Your task to perform on an android device: set the timer Image 0: 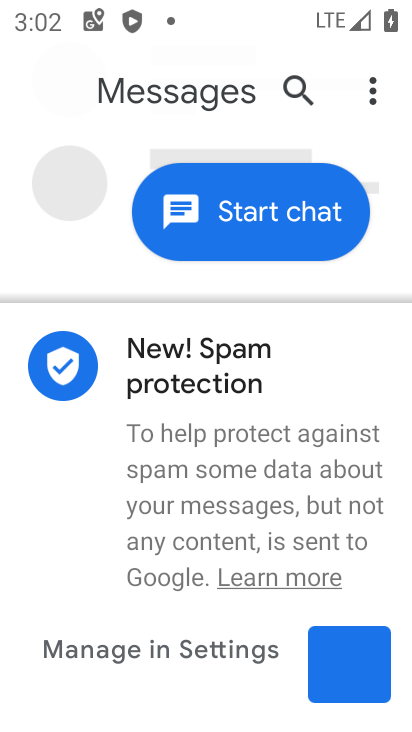
Step 0: press home button
Your task to perform on an android device: set the timer Image 1: 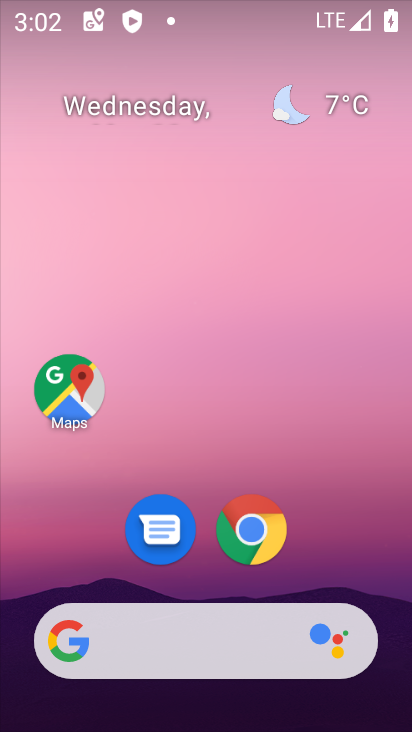
Step 1: drag from (349, 515) to (353, 26)
Your task to perform on an android device: set the timer Image 2: 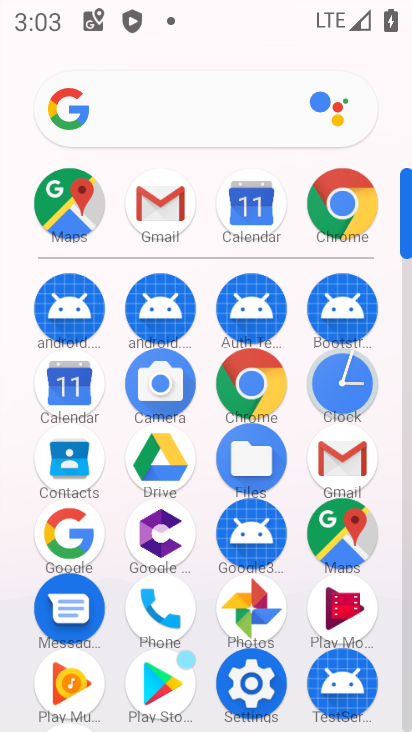
Step 2: click (338, 380)
Your task to perform on an android device: set the timer Image 3: 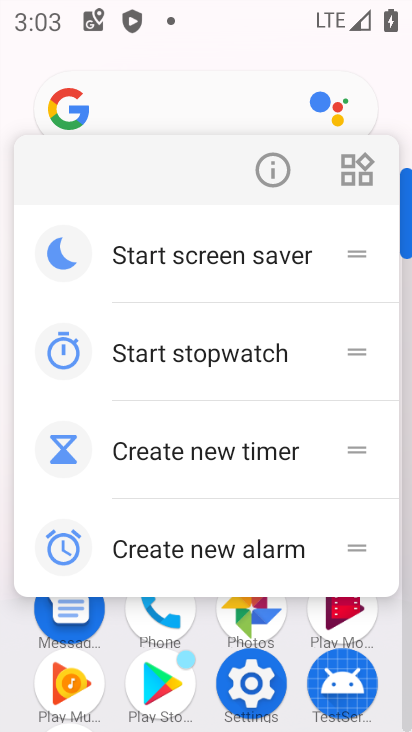
Step 3: press back button
Your task to perform on an android device: set the timer Image 4: 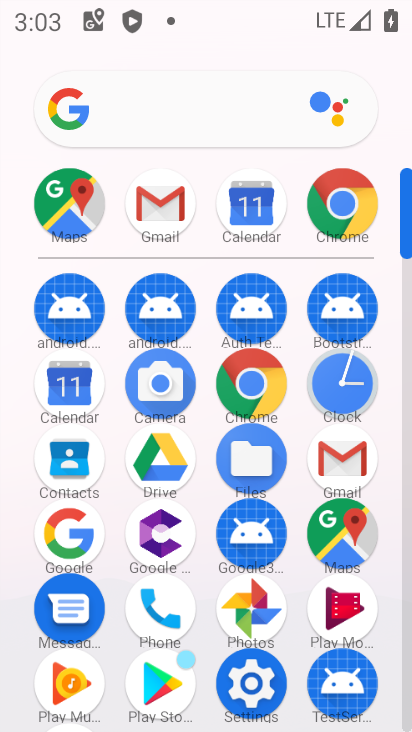
Step 4: click (364, 371)
Your task to perform on an android device: set the timer Image 5: 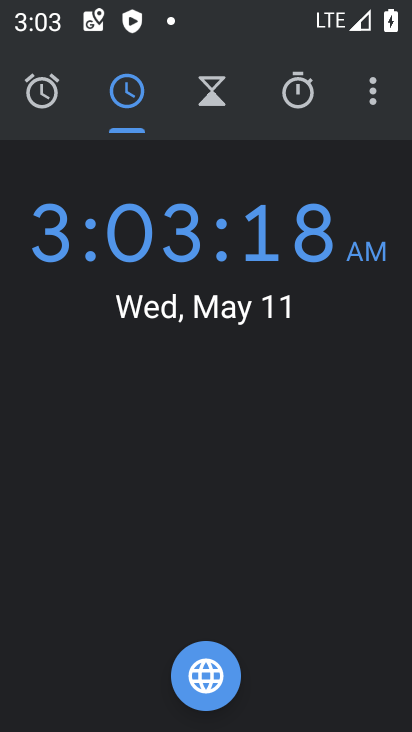
Step 5: click (206, 95)
Your task to perform on an android device: set the timer Image 6: 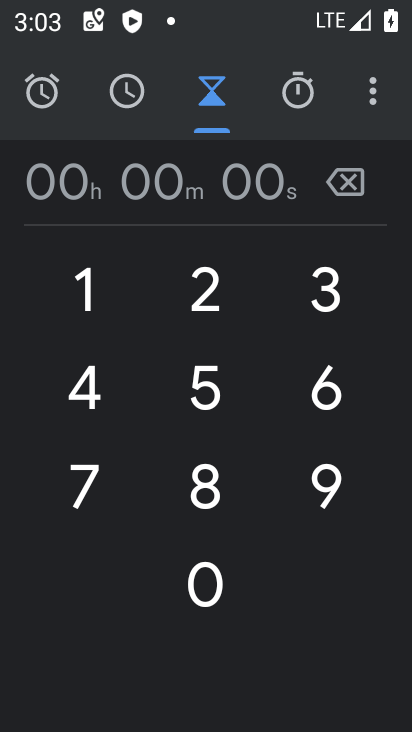
Step 6: click (102, 295)
Your task to perform on an android device: set the timer Image 7: 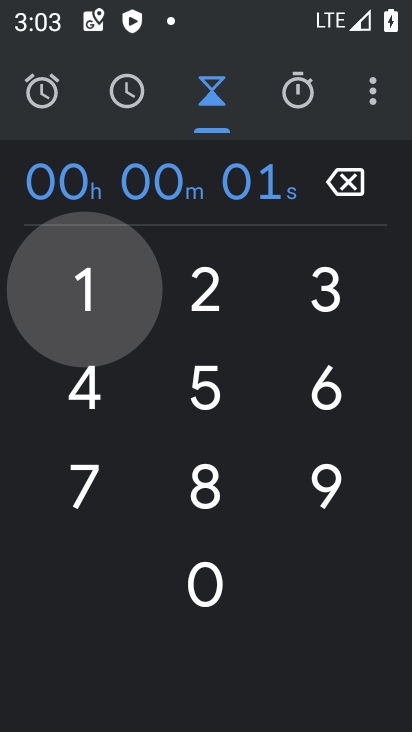
Step 7: click (103, 366)
Your task to perform on an android device: set the timer Image 8: 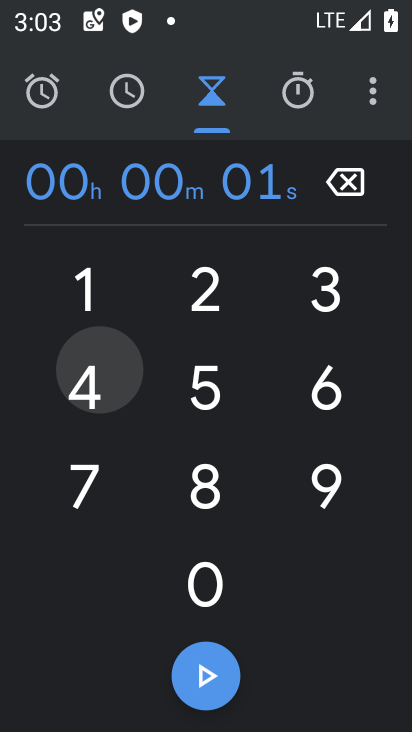
Step 8: click (81, 275)
Your task to perform on an android device: set the timer Image 9: 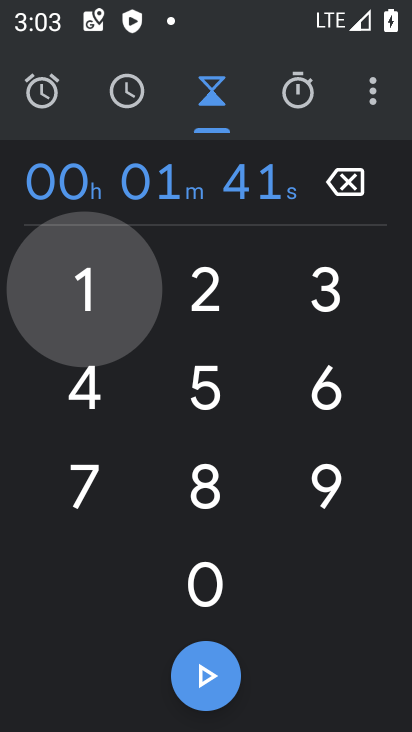
Step 9: click (93, 374)
Your task to perform on an android device: set the timer Image 10: 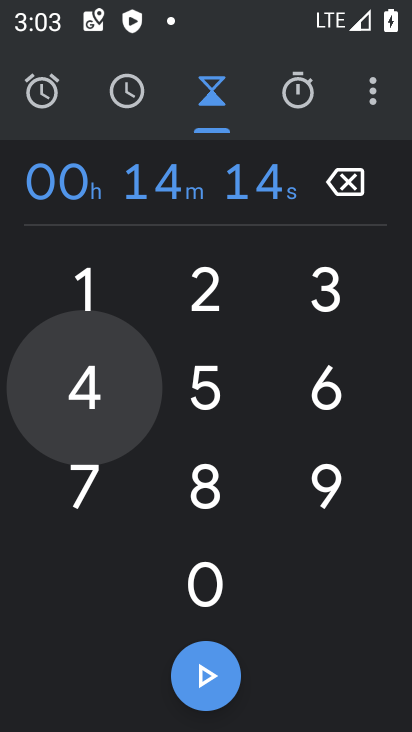
Step 10: click (79, 298)
Your task to perform on an android device: set the timer Image 11: 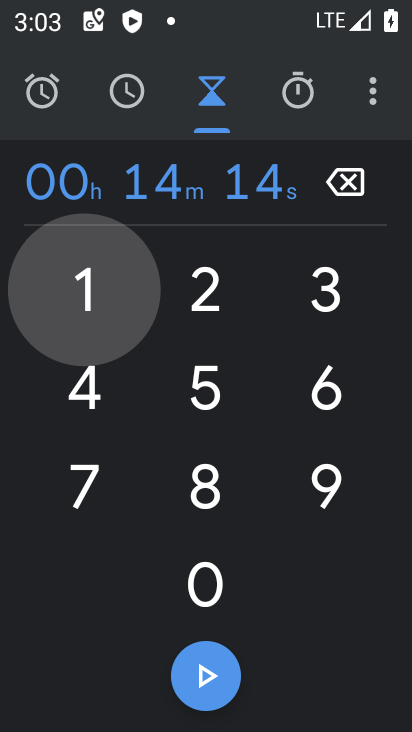
Step 11: click (92, 396)
Your task to perform on an android device: set the timer Image 12: 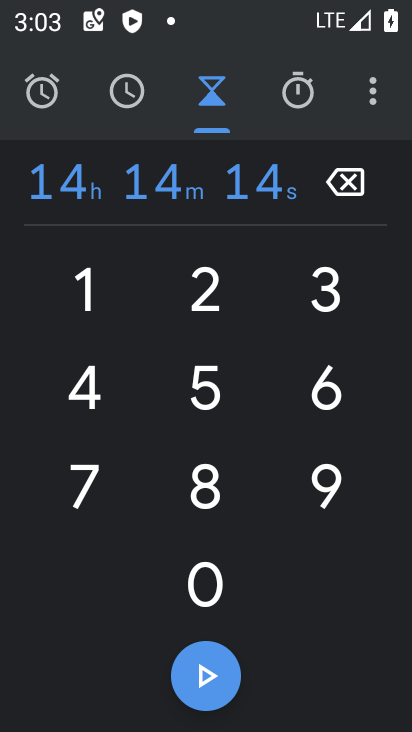
Step 12: click (215, 658)
Your task to perform on an android device: set the timer Image 13: 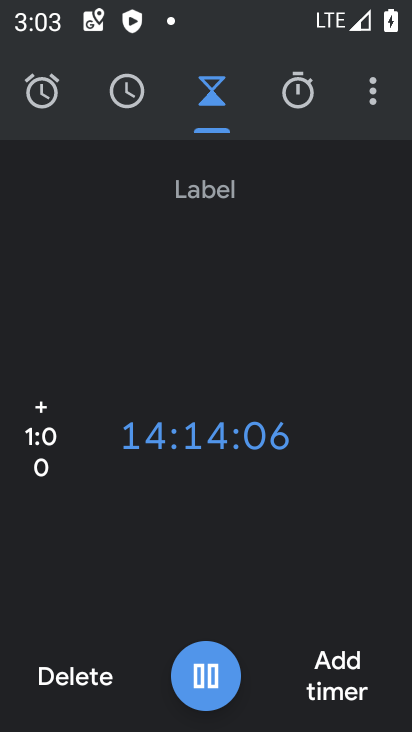
Step 13: task complete